Your task to perform on an android device: What is the recent news? Image 0: 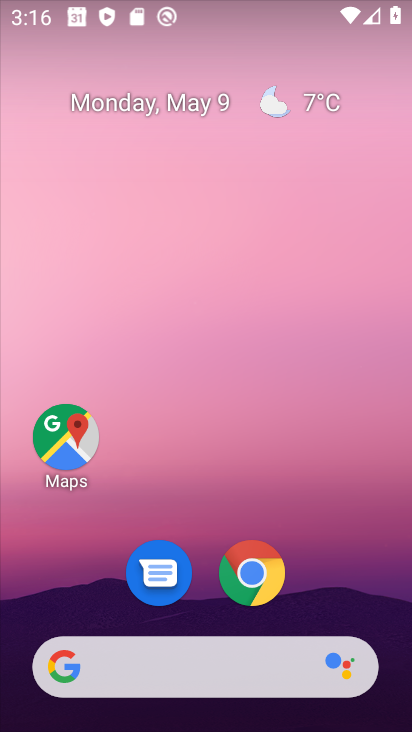
Step 0: drag from (332, 440) to (334, 315)
Your task to perform on an android device: What is the recent news? Image 1: 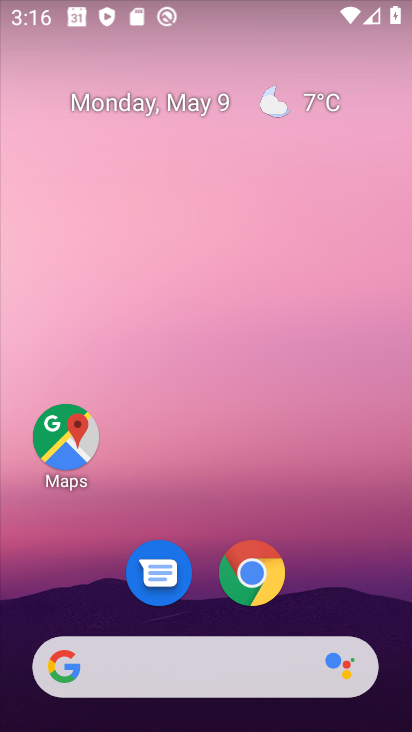
Step 1: drag from (281, 482) to (310, 224)
Your task to perform on an android device: What is the recent news? Image 2: 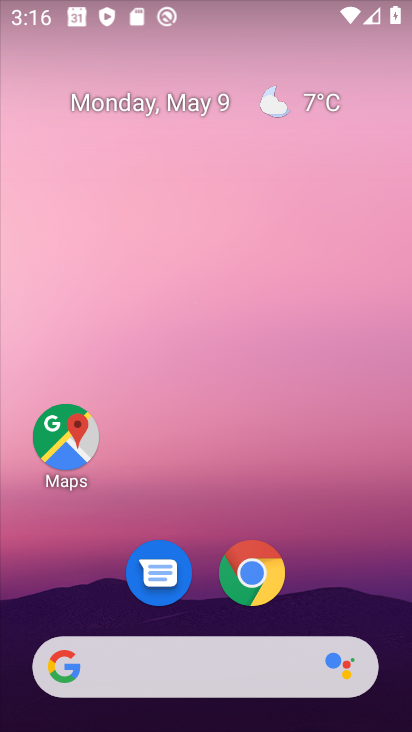
Step 2: drag from (221, 658) to (241, 280)
Your task to perform on an android device: What is the recent news? Image 3: 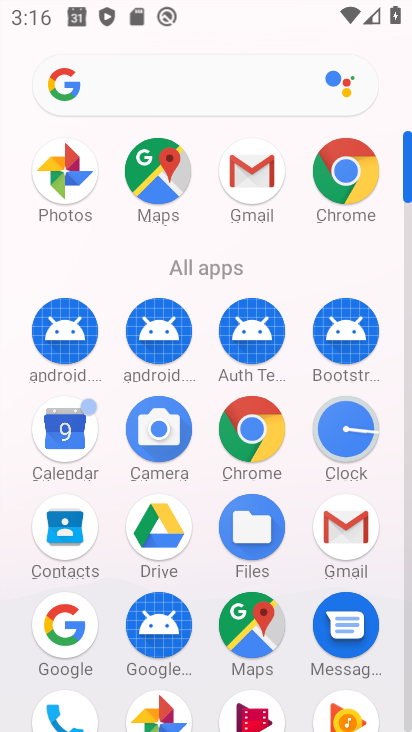
Step 3: click (335, 170)
Your task to perform on an android device: What is the recent news? Image 4: 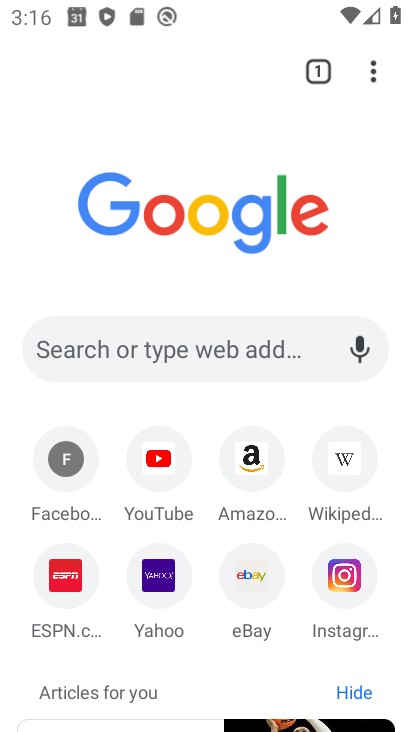
Step 4: click (206, 338)
Your task to perform on an android device: What is the recent news? Image 5: 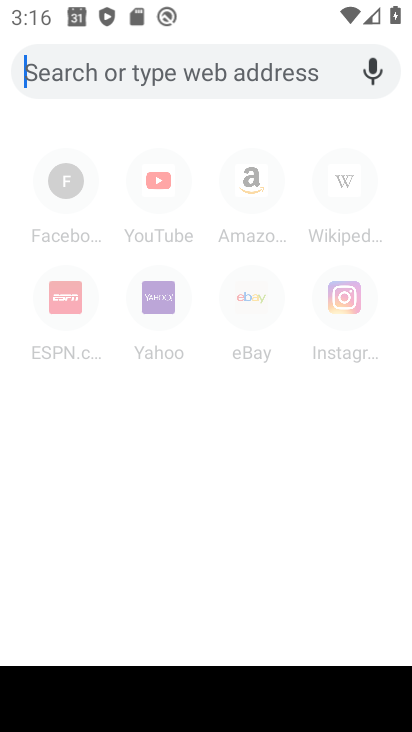
Step 5: type "What is the recent news?"
Your task to perform on an android device: What is the recent news? Image 6: 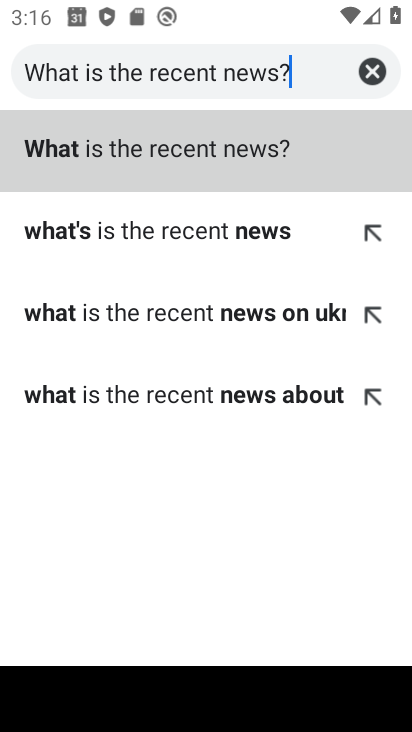
Step 6: click (187, 147)
Your task to perform on an android device: What is the recent news? Image 7: 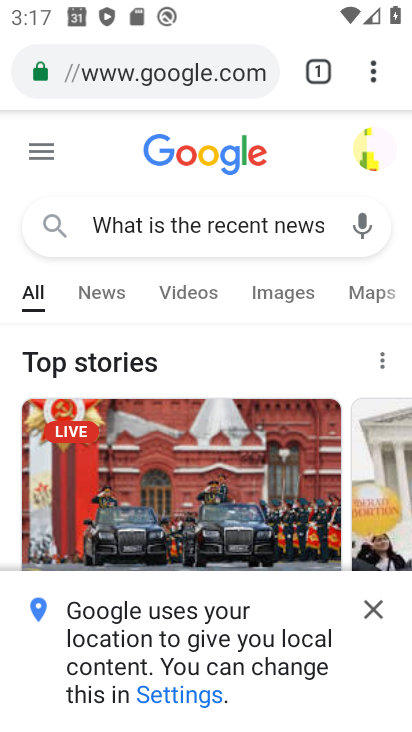
Step 7: task complete